Your task to perform on an android device: Open Yahoo.com Image 0: 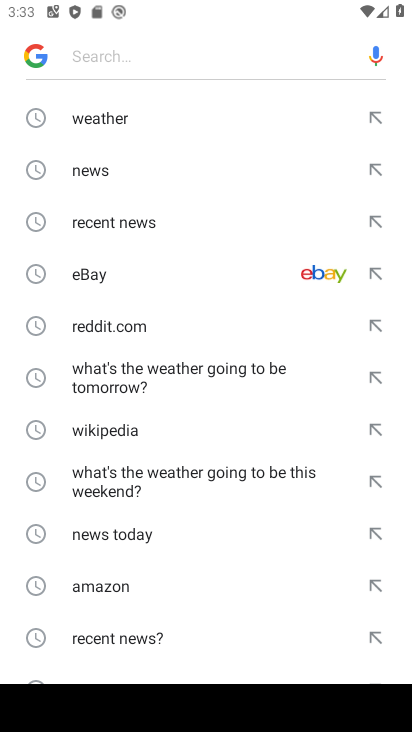
Step 0: press home button
Your task to perform on an android device: Open Yahoo.com Image 1: 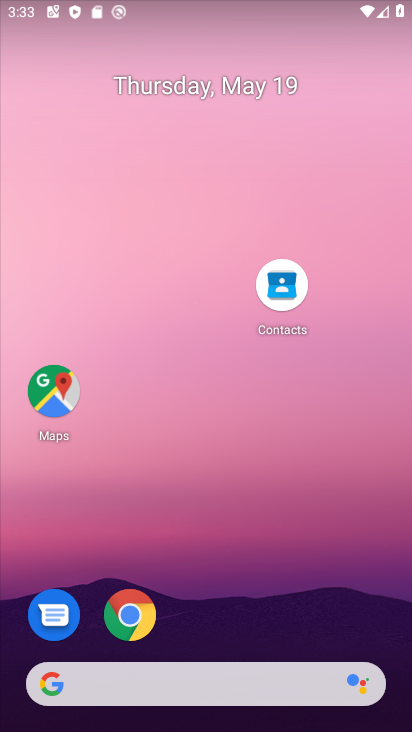
Step 1: drag from (214, 512) to (292, 106)
Your task to perform on an android device: Open Yahoo.com Image 2: 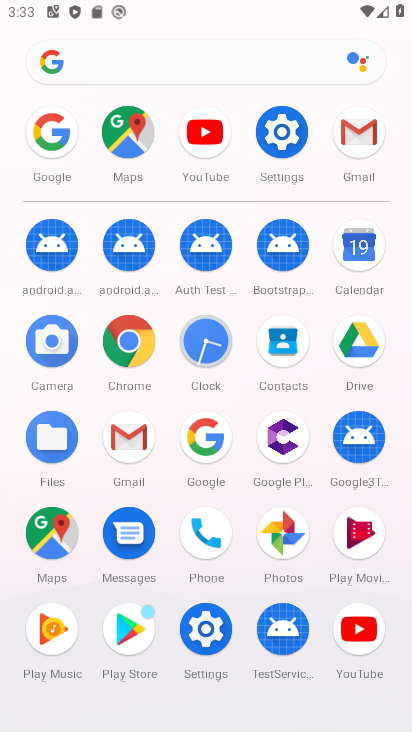
Step 2: click (123, 357)
Your task to perform on an android device: Open Yahoo.com Image 3: 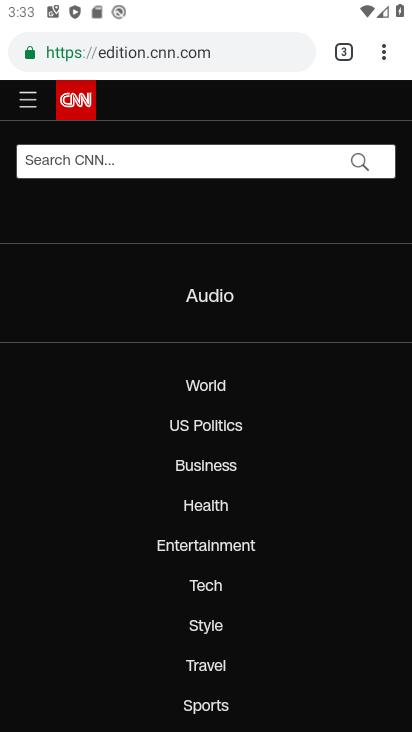
Step 3: click (252, 50)
Your task to perform on an android device: Open Yahoo.com Image 4: 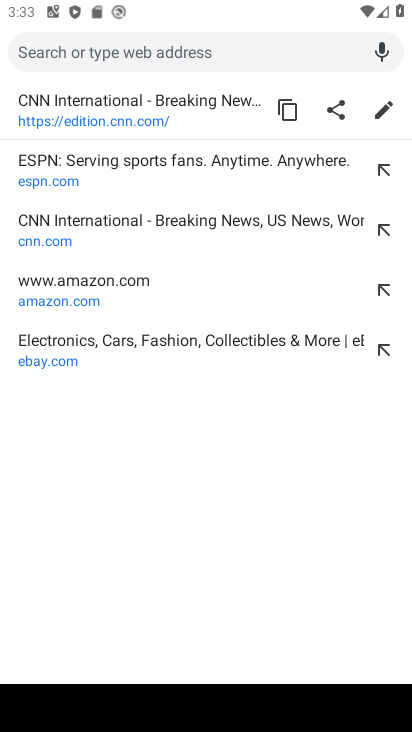
Step 4: type "yahoo"
Your task to perform on an android device: Open Yahoo.com Image 5: 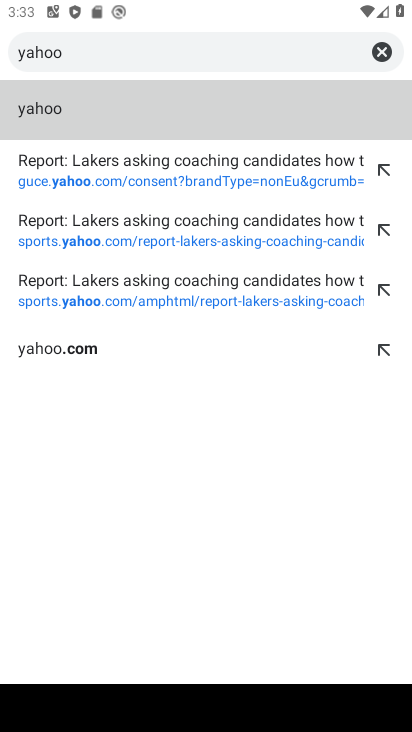
Step 5: click (163, 122)
Your task to perform on an android device: Open Yahoo.com Image 6: 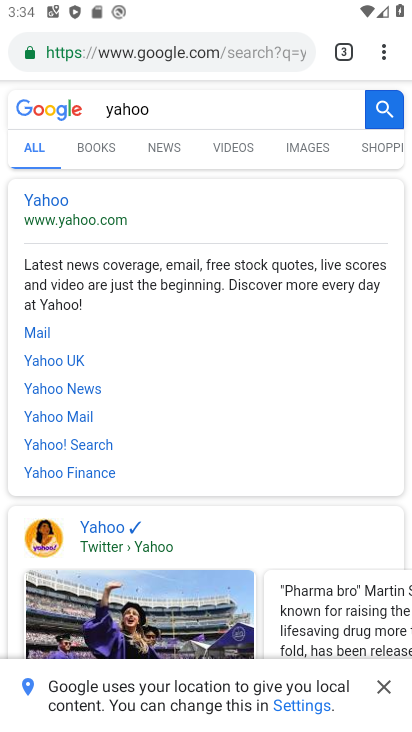
Step 6: click (40, 198)
Your task to perform on an android device: Open Yahoo.com Image 7: 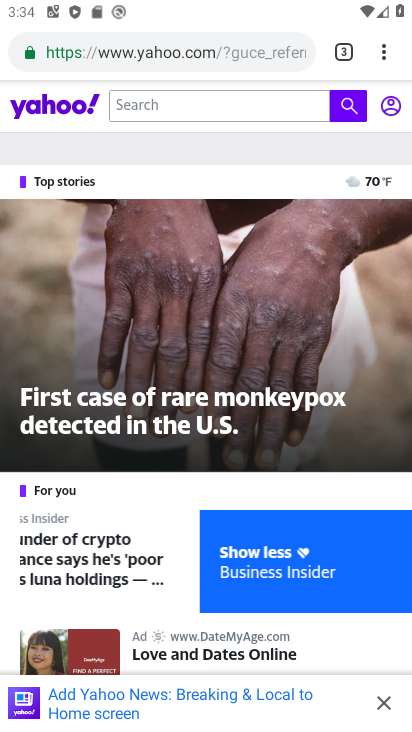
Step 7: task complete